Your task to perform on an android device: Go to Google Image 0: 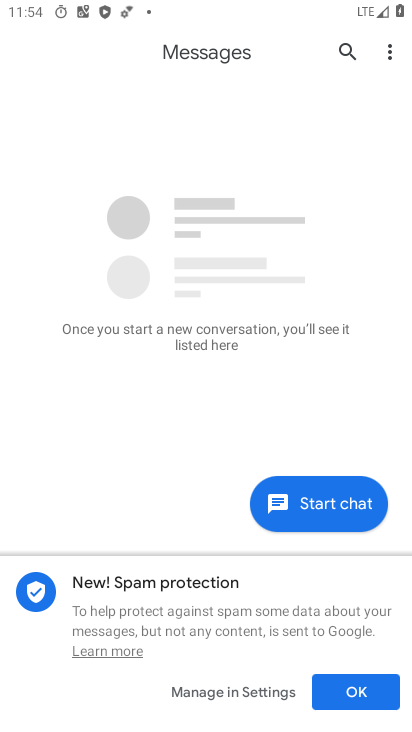
Step 0: press home button
Your task to perform on an android device: Go to Google Image 1: 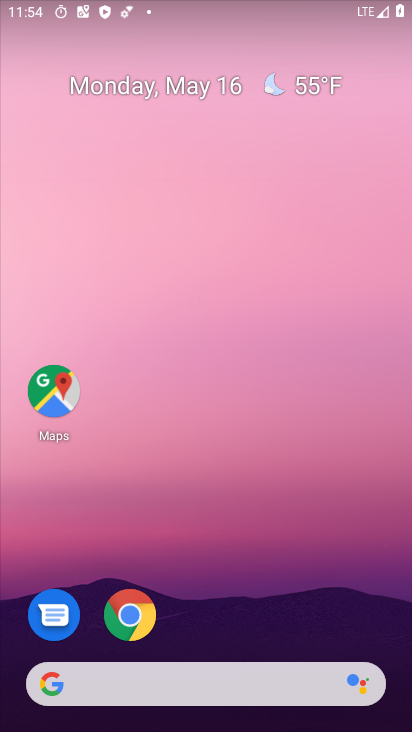
Step 1: drag from (244, 594) to (260, 158)
Your task to perform on an android device: Go to Google Image 2: 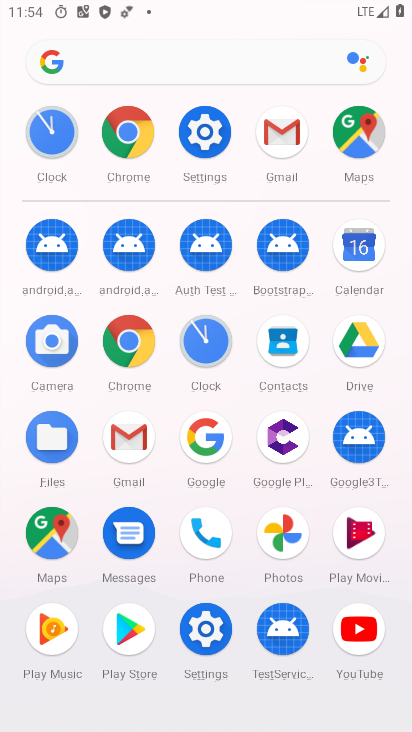
Step 2: click (211, 438)
Your task to perform on an android device: Go to Google Image 3: 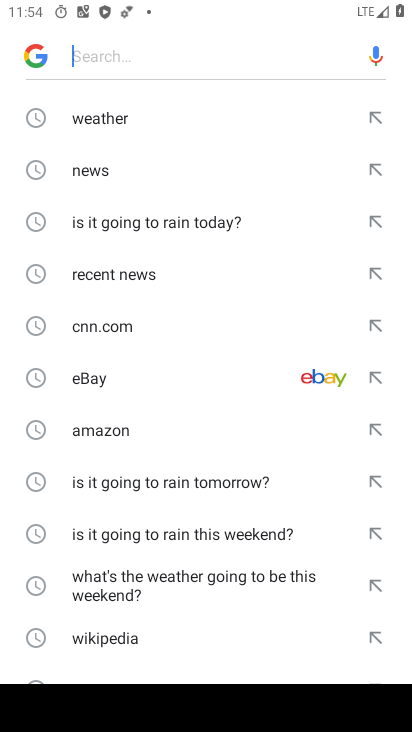
Step 3: task complete